Your task to perform on an android device: change the clock style Image 0: 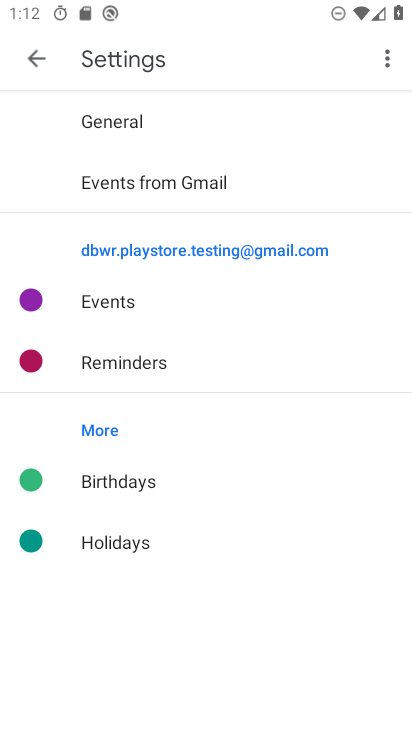
Step 0: press home button
Your task to perform on an android device: change the clock style Image 1: 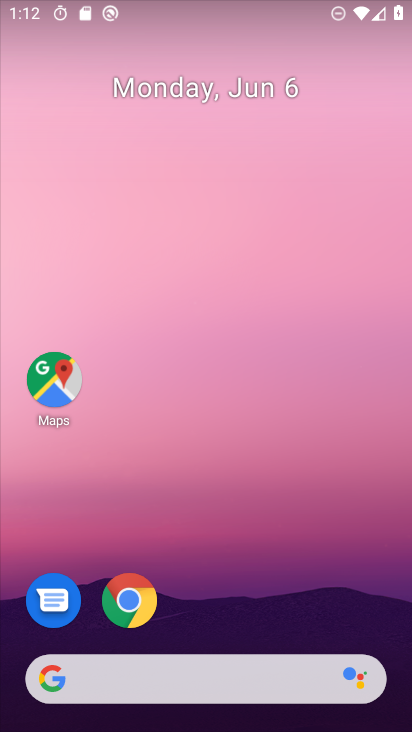
Step 1: drag from (263, 622) to (267, 277)
Your task to perform on an android device: change the clock style Image 2: 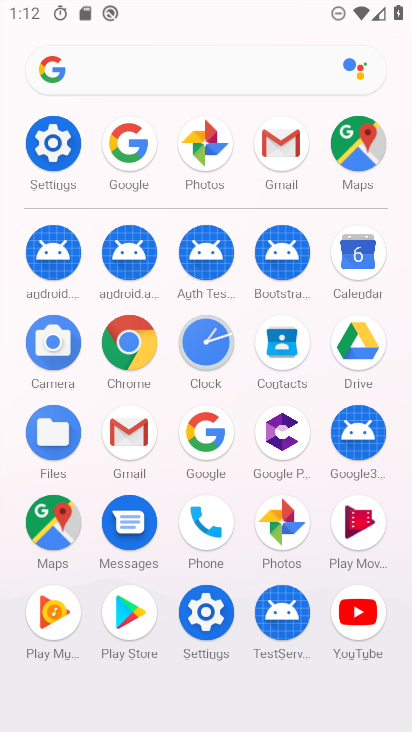
Step 2: click (214, 343)
Your task to perform on an android device: change the clock style Image 3: 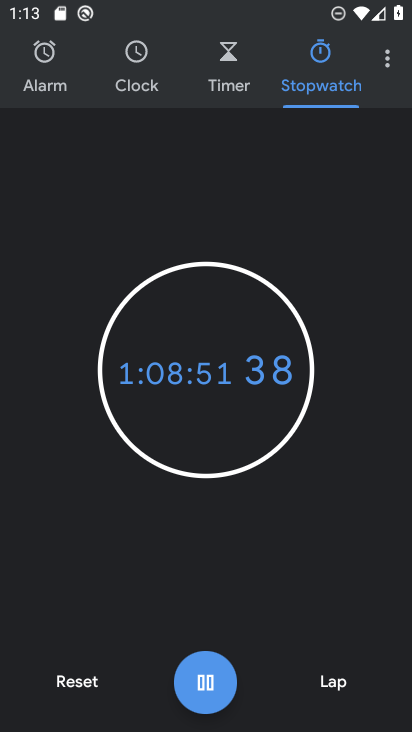
Step 3: click (380, 62)
Your task to perform on an android device: change the clock style Image 4: 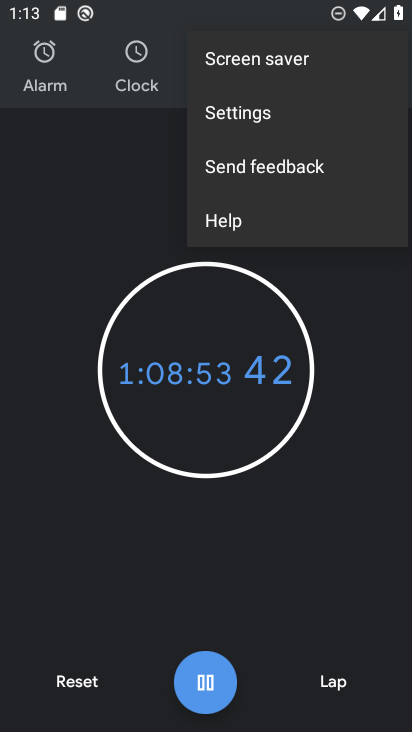
Step 4: click (224, 124)
Your task to perform on an android device: change the clock style Image 5: 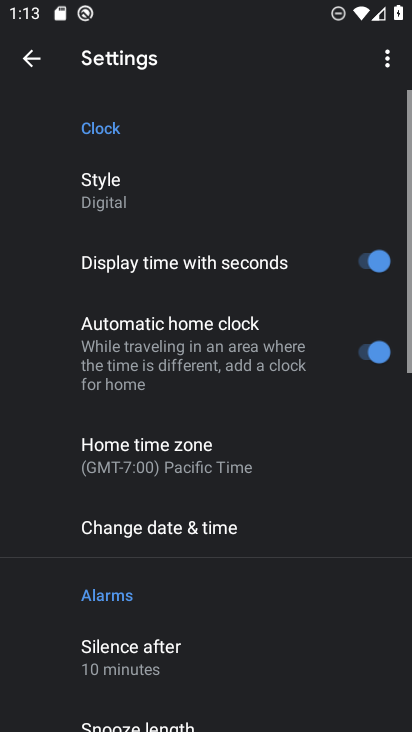
Step 5: click (162, 183)
Your task to perform on an android device: change the clock style Image 6: 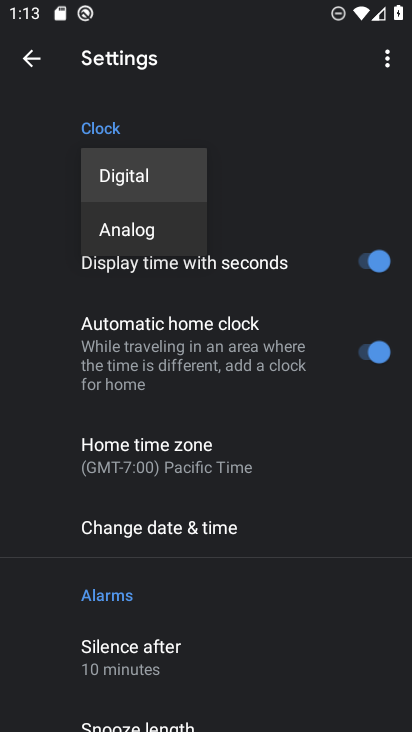
Step 6: click (162, 218)
Your task to perform on an android device: change the clock style Image 7: 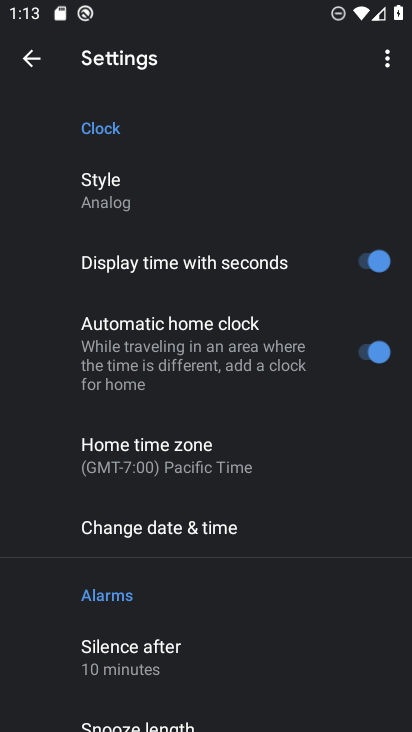
Step 7: task complete